Your task to perform on an android device: Go to Yahoo.com Image 0: 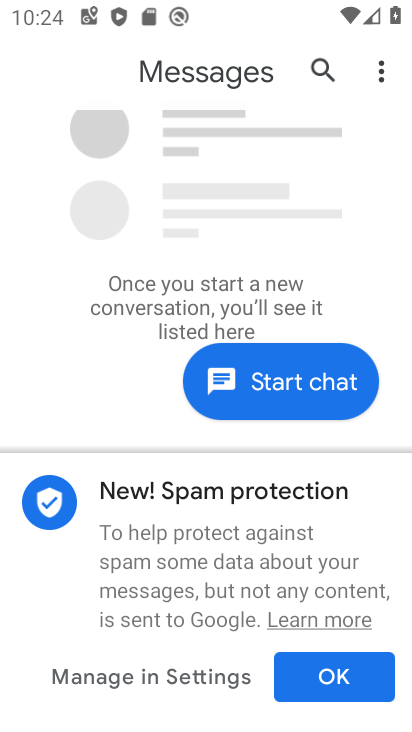
Step 0: press home button
Your task to perform on an android device: Go to Yahoo.com Image 1: 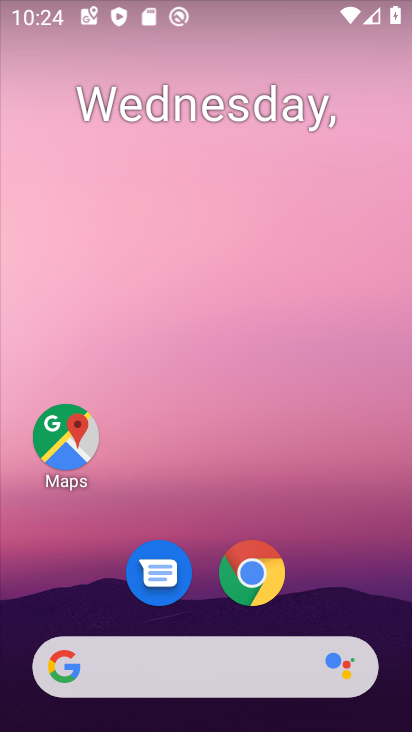
Step 1: drag from (391, 604) to (386, 110)
Your task to perform on an android device: Go to Yahoo.com Image 2: 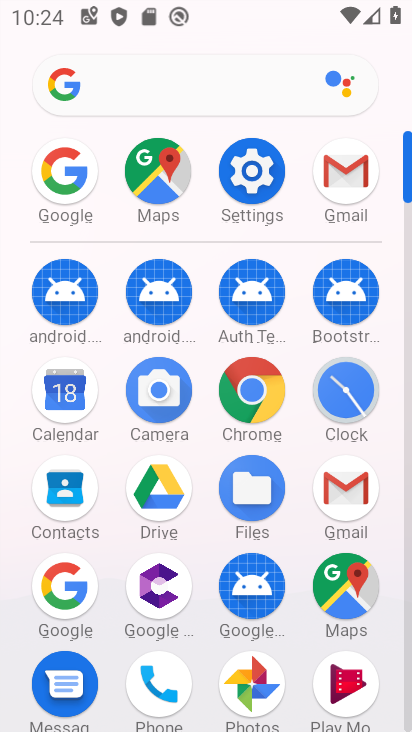
Step 2: click (255, 402)
Your task to perform on an android device: Go to Yahoo.com Image 3: 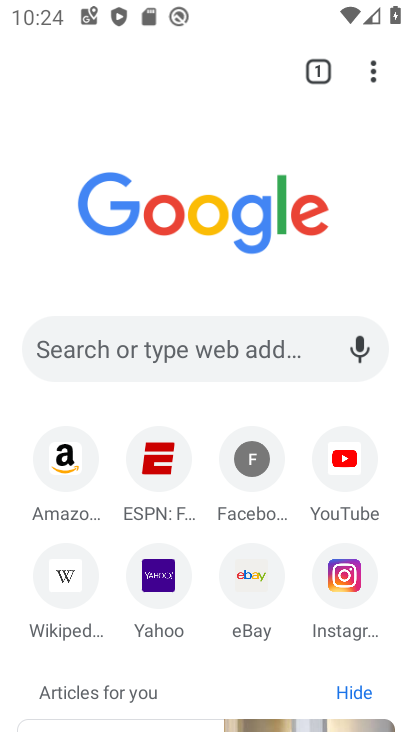
Step 3: click (160, 604)
Your task to perform on an android device: Go to Yahoo.com Image 4: 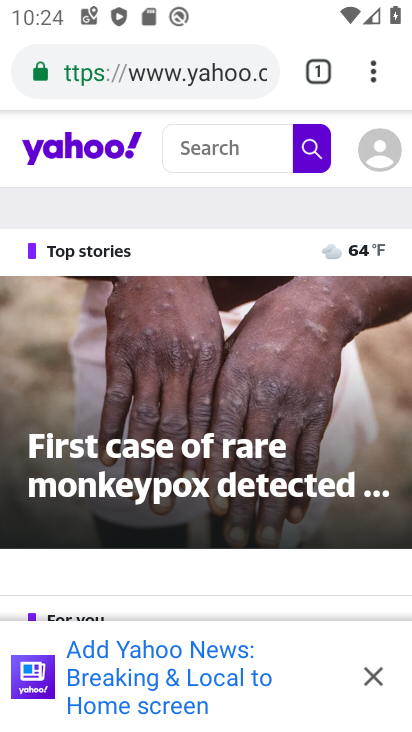
Step 4: task complete